Your task to perform on an android device: check battery use Image 0: 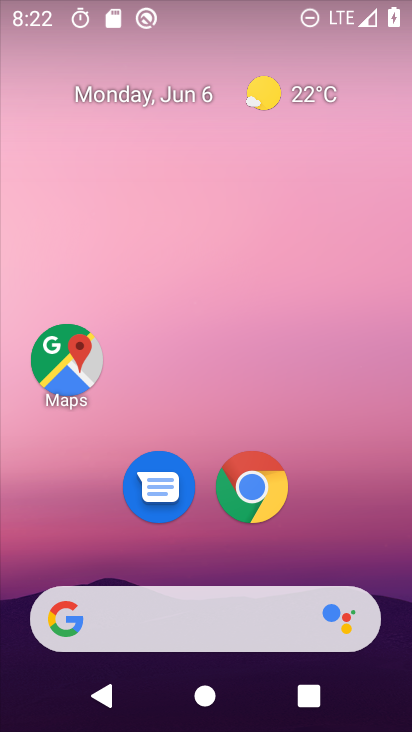
Step 0: drag from (396, 633) to (239, 31)
Your task to perform on an android device: check battery use Image 1: 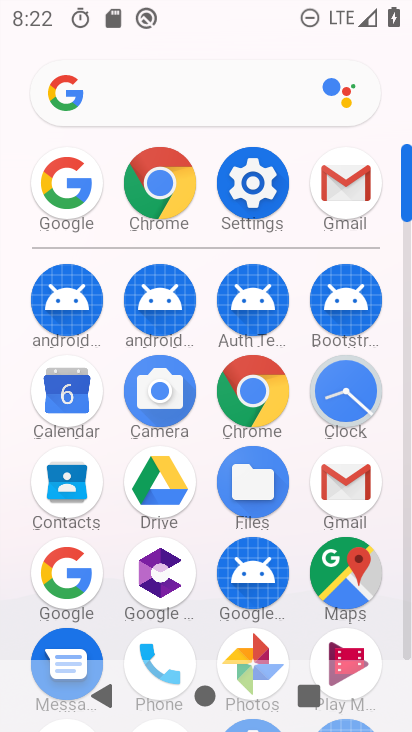
Step 1: click (270, 192)
Your task to perform on an android device: check battery use Image 2: 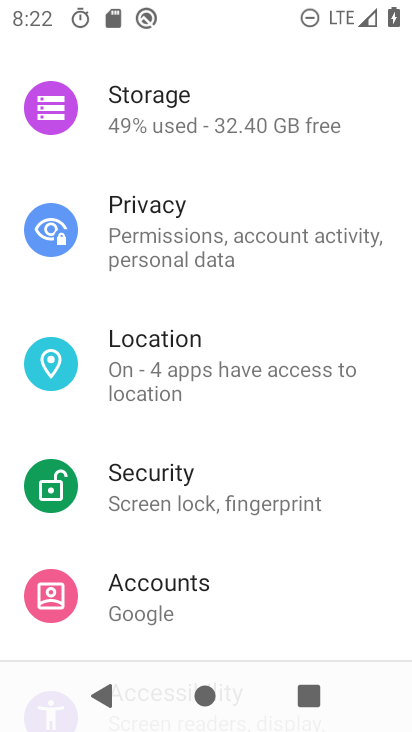
Step 2: drag from (217, 161) to (289, 580)
Your task to perform on an android device: check battery use Image 3: 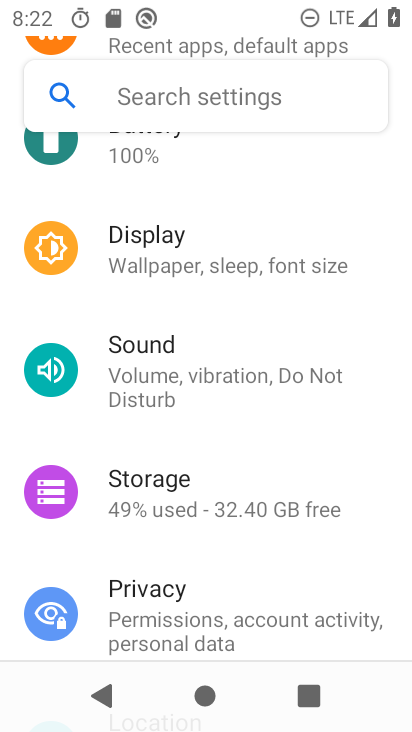
Step 3: drag from (208, 199) to (248, 551)
Your task to perform on an android device: check battery use Image 4: 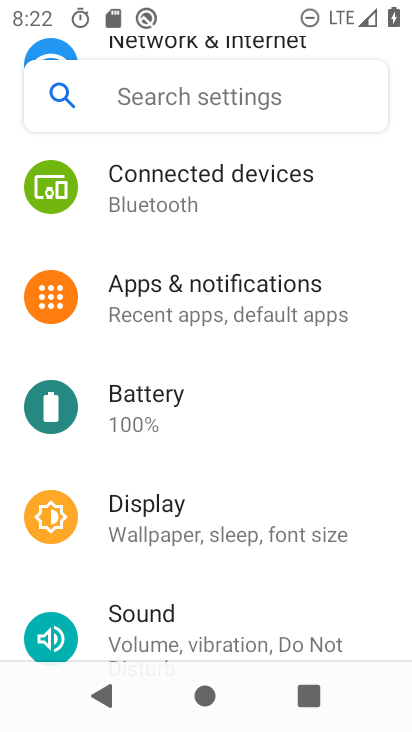
Step 4: click (168, 416)
Your task to perform on an android device: check battery use Image 5: 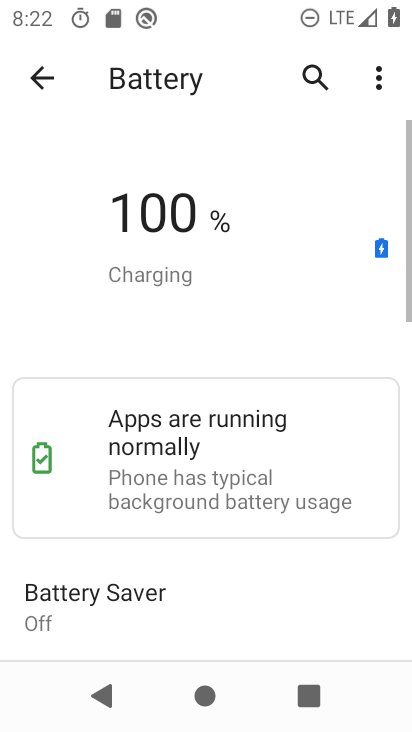
Step 5: click (378, 69)
Your task to perform on an android device: check battery use Image 6: 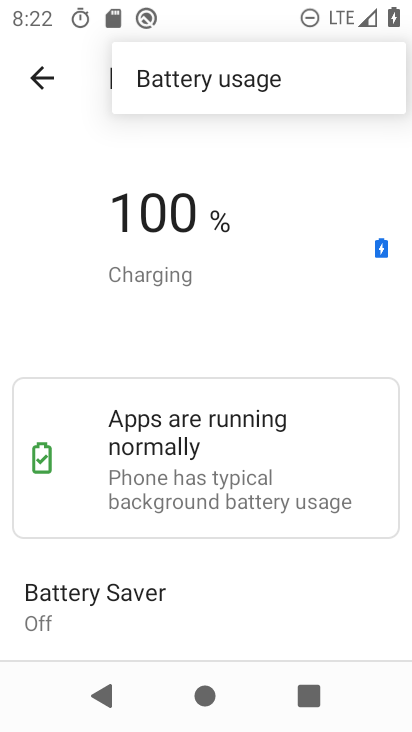
Step 6: click (198, 76)
Your task to perform on an android device: check battery use Image 7: 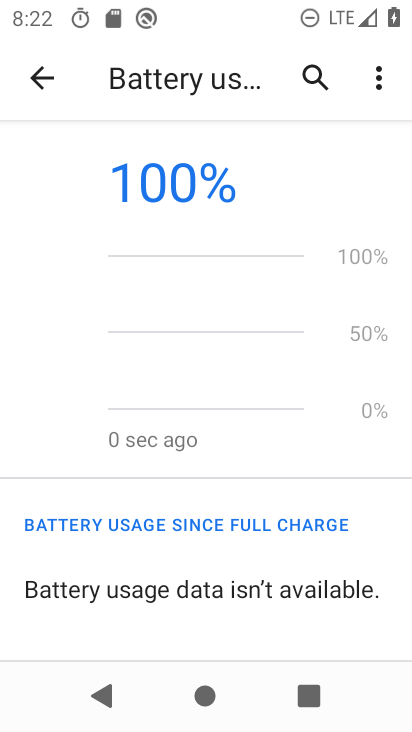
Step 7: task complete